Your task to perform on an android device: Go to wifi settings Image 0: 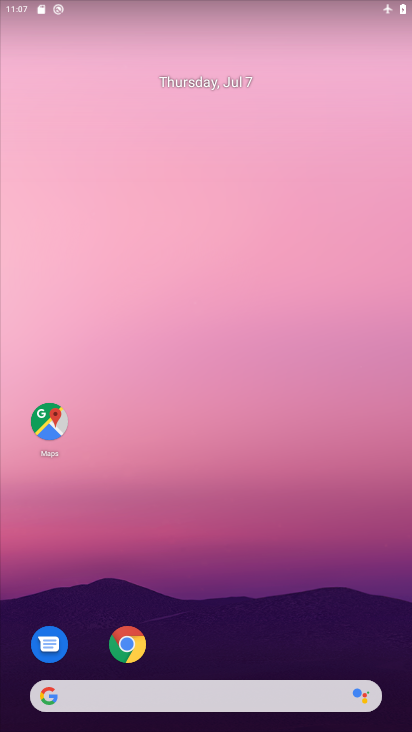
Step 0: click (45, 414)
Your task to perform on an android device: Go to wifi settings Image 1: 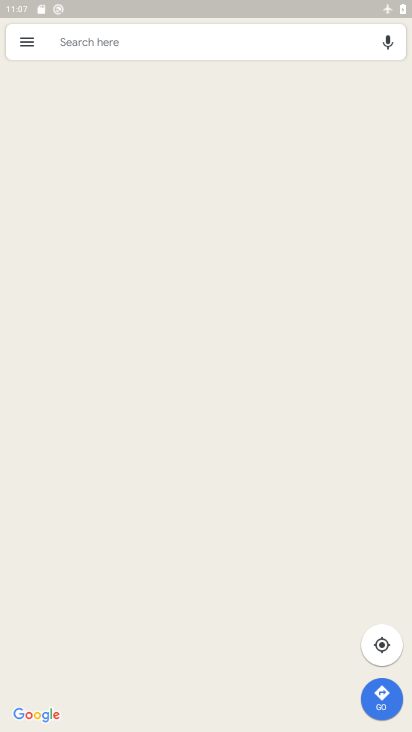
Step 1: press home button
Your task to perform on an android device: Go to wifi settings Image 2: 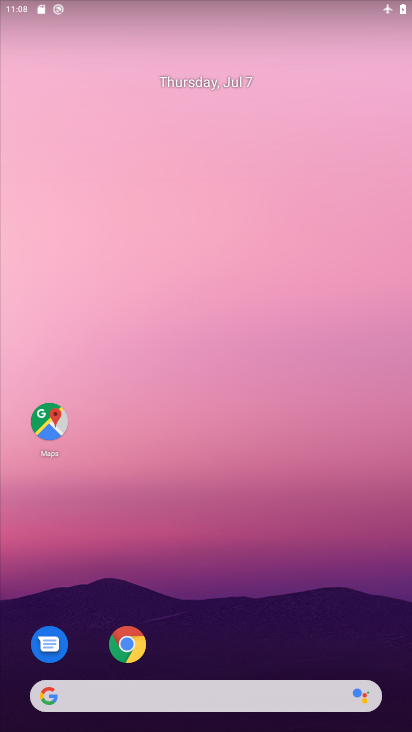
Step 2: drag from (47, 631) to (246, 0)
Your task to perform on an android device: Go to wifi settings Image 3: 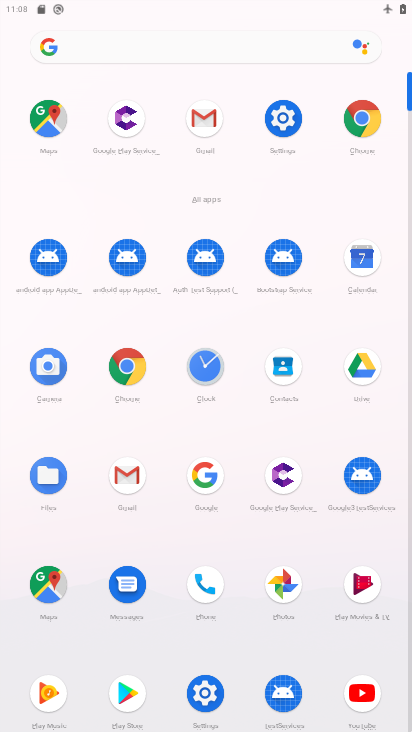
Step 3: click (283, 120)
Your task to perform on an android device: Go to wifi settings Image 4: 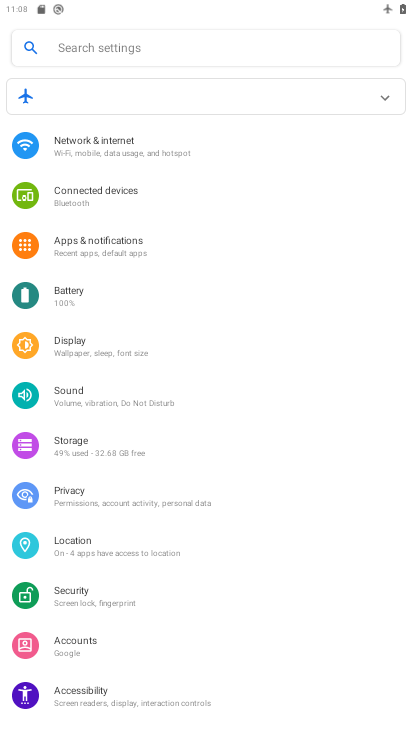
Step 4: click (104, 143)
Your task to perform on an android device: Go to wifi settings Image 5: 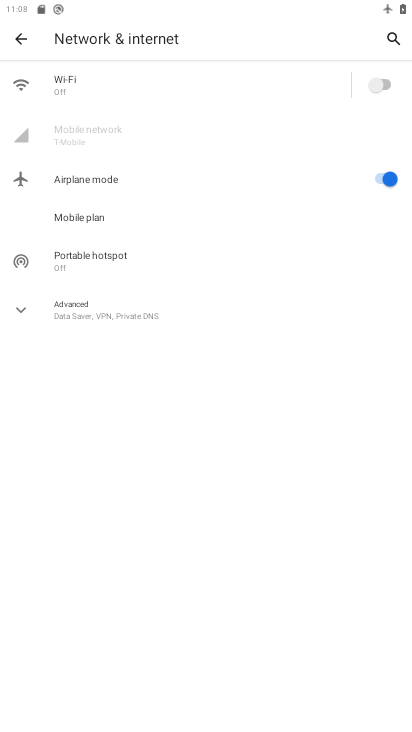
Step 5: click (81, 92)
Your task to perform on an android device: Go to wifi settings Image 6: 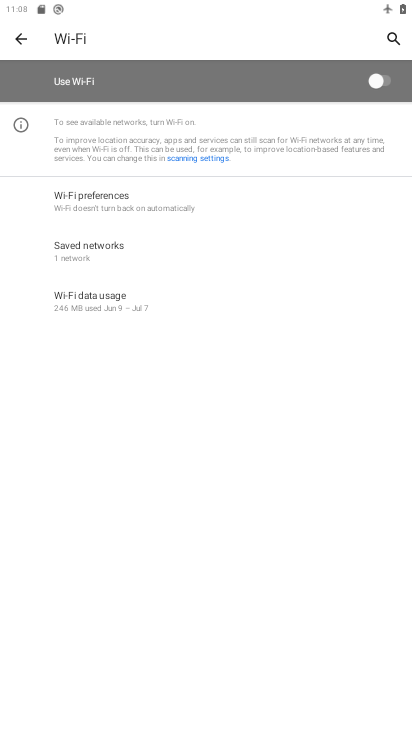
Step 6: task complete